Your task to perform on an android device: open sync settings in chrome Image 0: 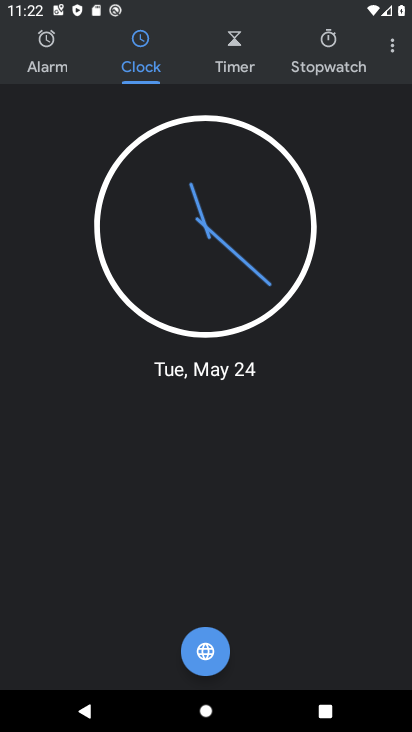
Step 0: press home button
Your task to perform on an android device: open sync settings in chrome Image 1: 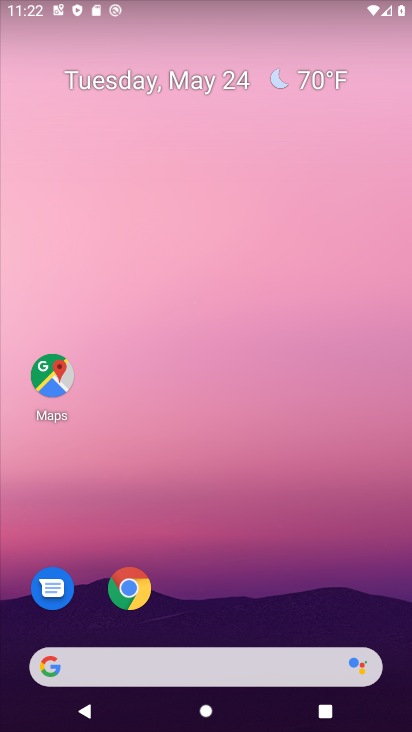
Step 1: drag from (6, 305) to (411, 325)
Your task to perform on an android device: open sync settings in chrome Image 2: 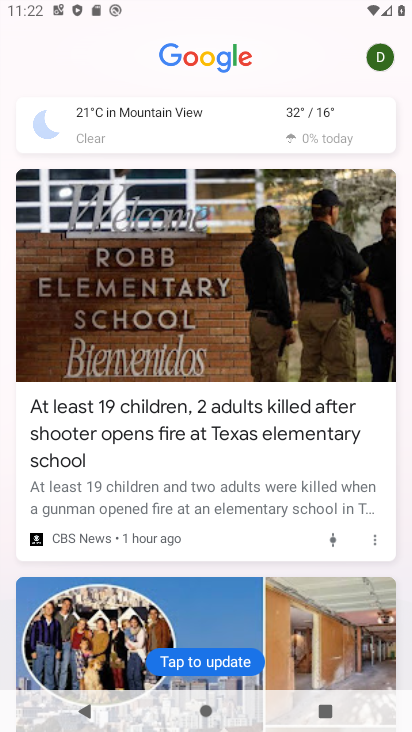
Step 2: press home button
Your task to perform on an android device: open sync settings in chrome Image 3: 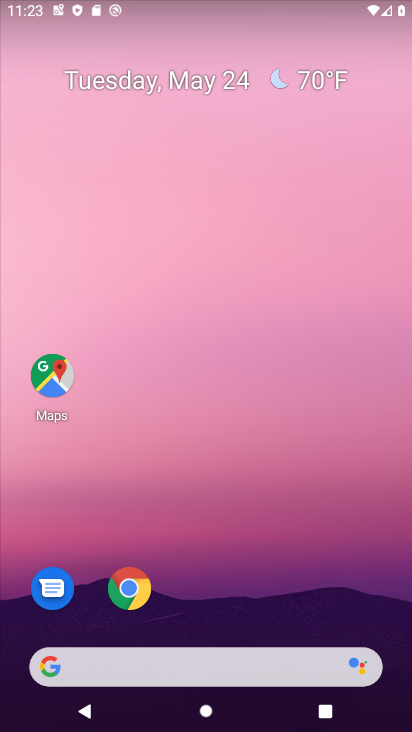
Step 3: click (127, 584)
Your task to perform on an android device: open sync settings in chrome Image 4: 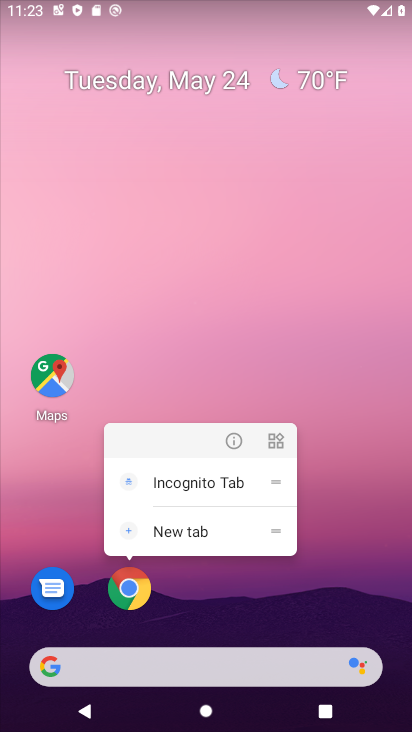
Step 4: click (127, 581)
Your task to perform on an android device: open sync settings in chrome Image 5: 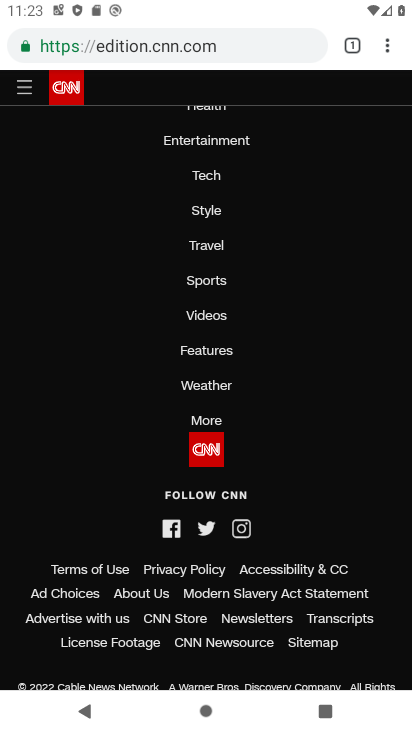
Step 5: click (389, 43)
Your task to perform on an android device: open sync settings in chrome Image 6: 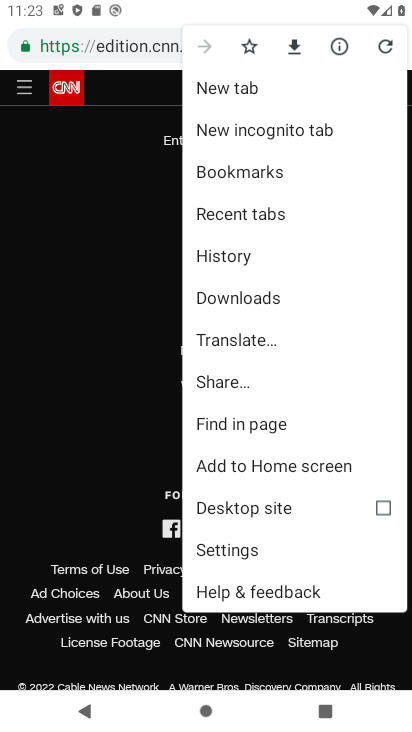
Step 6: click (268, 546)
Your task to perform on an android device: open sync settings in chrome Image 7: 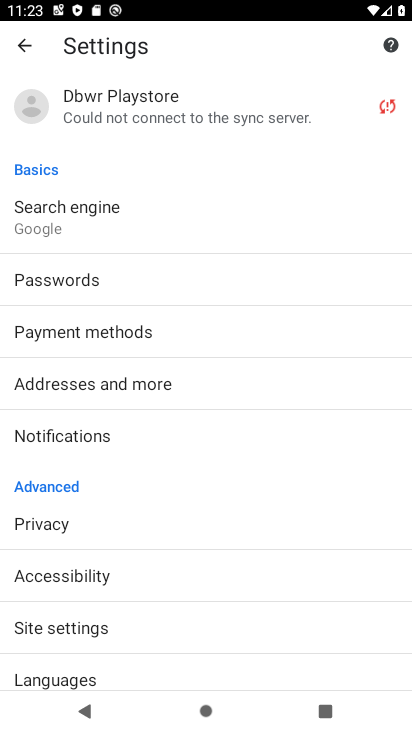
Step 7: drag from (193, 648) to (225, 222)
Your task to perform on an android device: open sync settings in chrome Image 8: 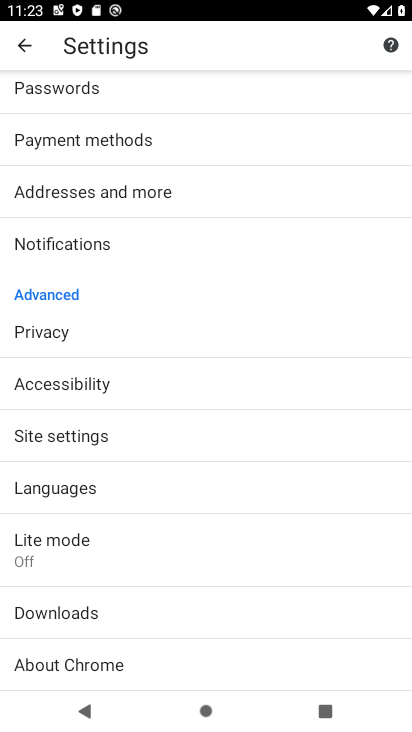
Step 8: drag from (189, 214) to (203, 630)
Your task to perform on an android device: open sync settings in chrome Image 9: 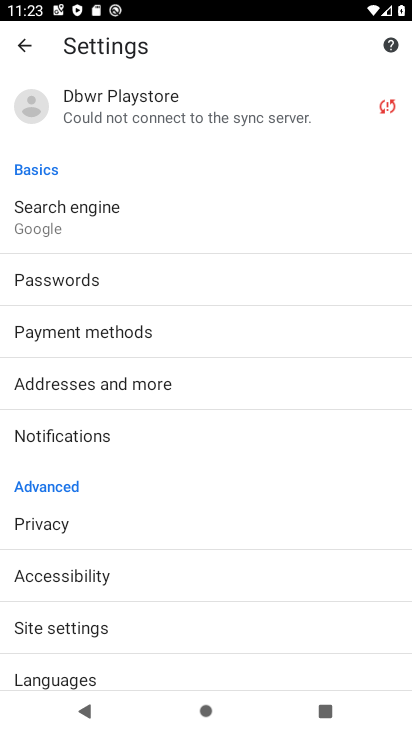
Step 9: click (203, 102)
Your task to perform on an android device: open sync settings in chrome Image 10: 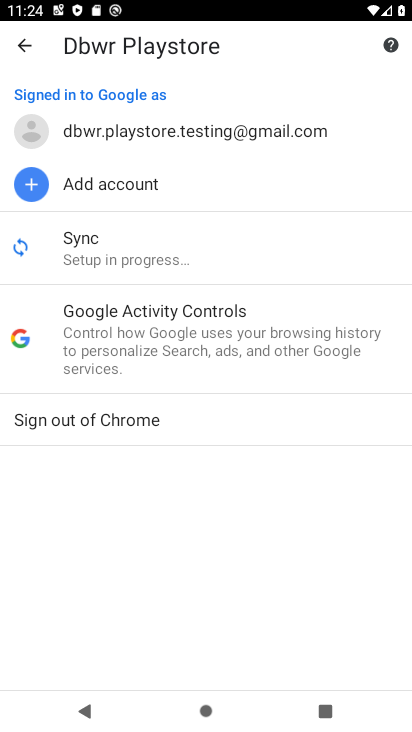
Step 10: click (141, 237)
Your task to perform on an android device: open sync settings in chrome Image 11: 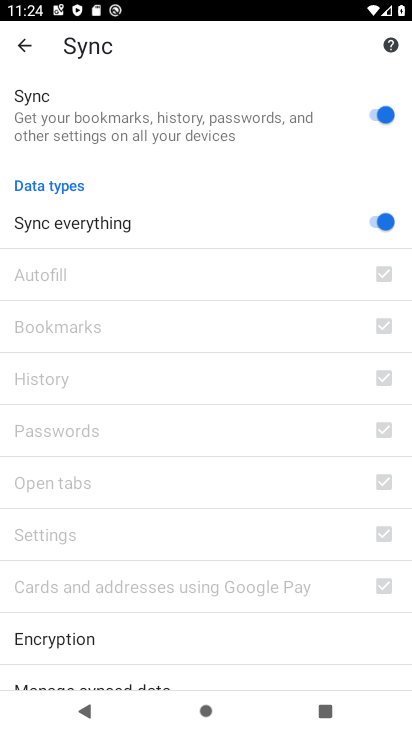
Step 11: task complete